Your task to perform on an android device: empty trash in google photos Image 0: 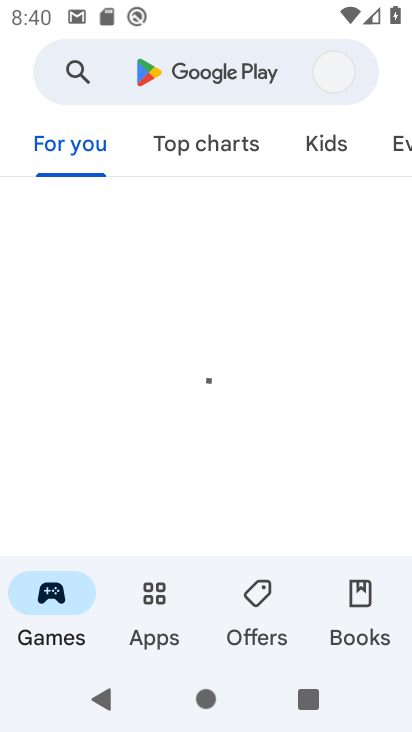
Step 0: press home button
Your task to perform on an android device: empty trash in google photos Image 1: 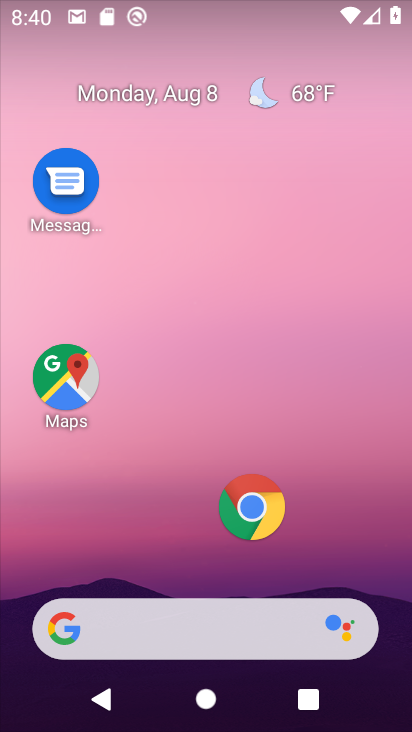
Step 1: drag from (219, 554) to (408, 4)
Your task to perform on an android device: empty trash in google photos Image 2: 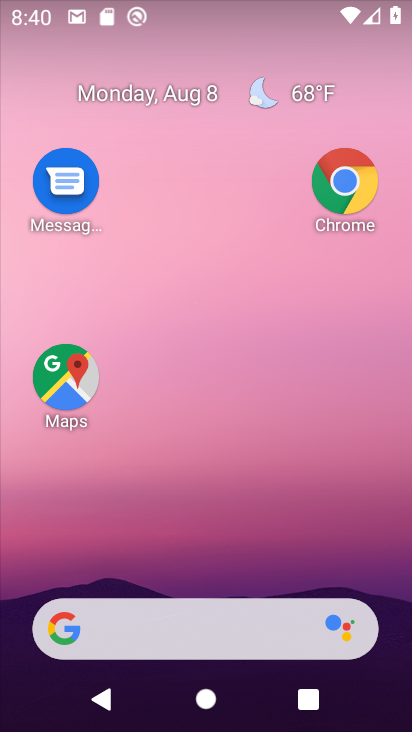
Step 2: click (302, 507)
Your task to perform on an android device: empty trash in google photos Image 3: 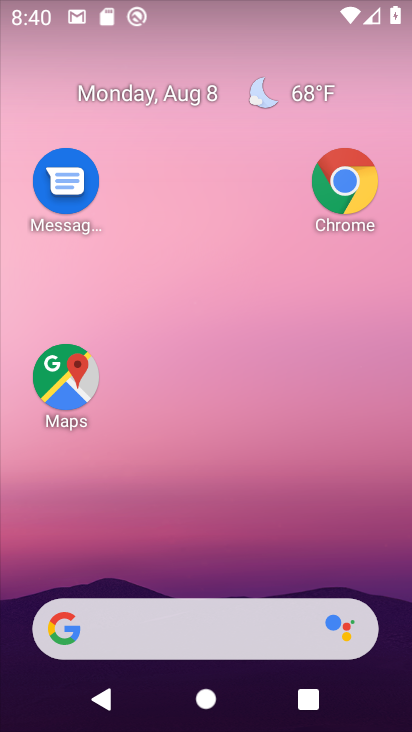
Step 3: drag from (287, 540) to (406, 13)
Your task to perform on an android device: empty trash in google photos Image 4: 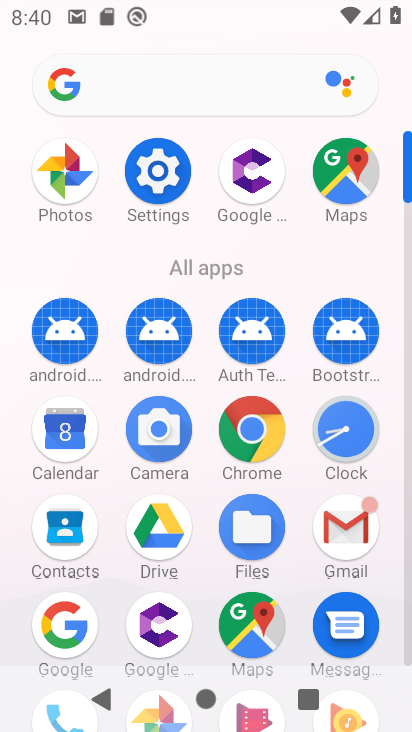
Step 4: click (77, 182)
Your task to perform on an android device: empty trash in google photos Image 5: 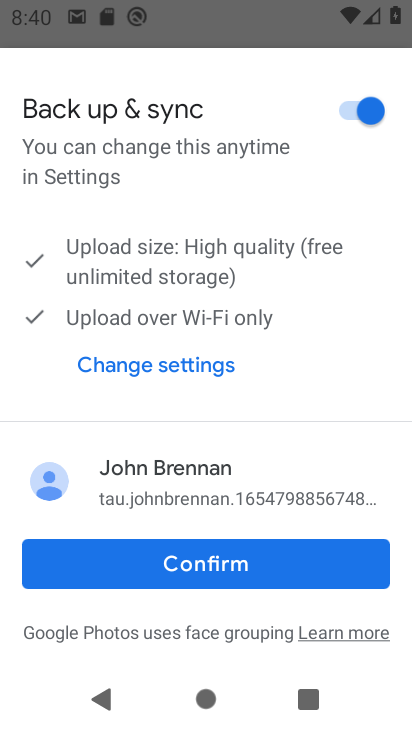
Step 5: click (270, 576)
Your task to perform on an android device: empty trash in google photos Image 6: 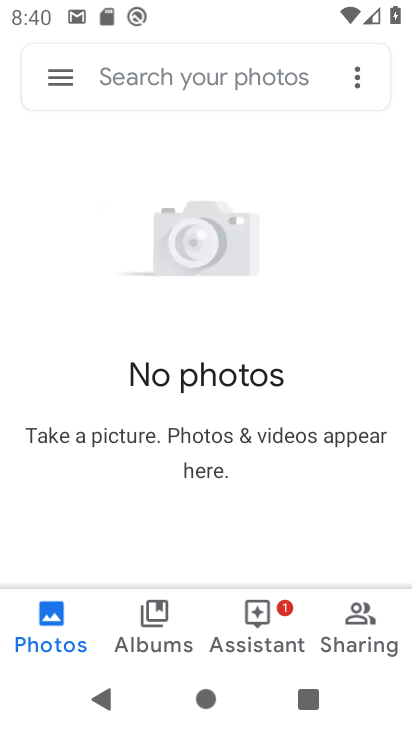
Step 6: click (50, 75)
Your task to perform on an android device: empty trash in google photos Image 7: 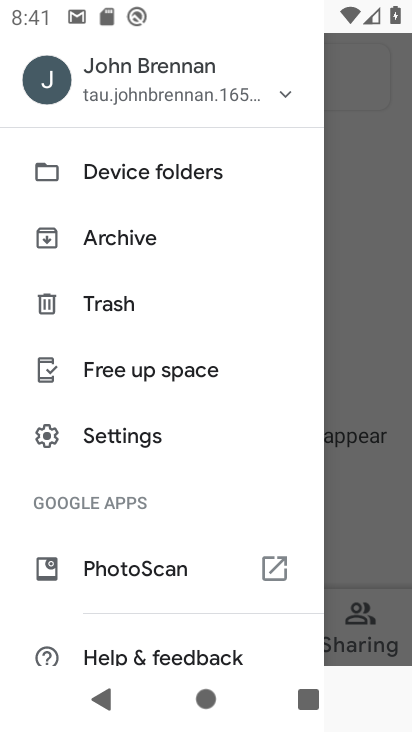
Step 7: click (47, 288)
Your task to perform on an android device: empty trash in google photos Image 8: 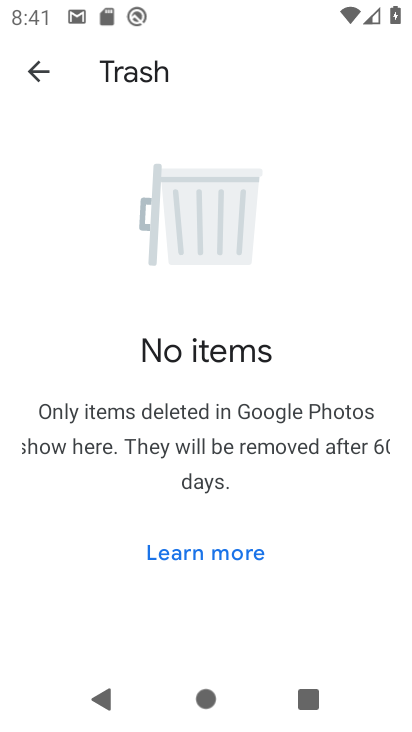
Step 8: task complete